Your task to perform on an android device: check battery use Image 0: 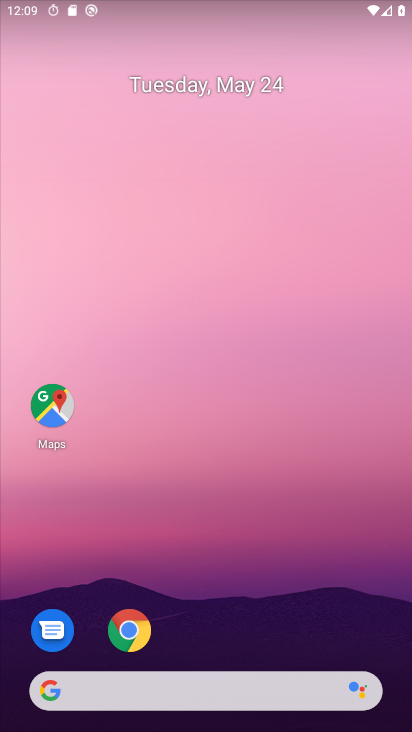
Step 0: drag from (194, 633) to (271, 1)
Your task to perform on an android device: check battery use Image 1: 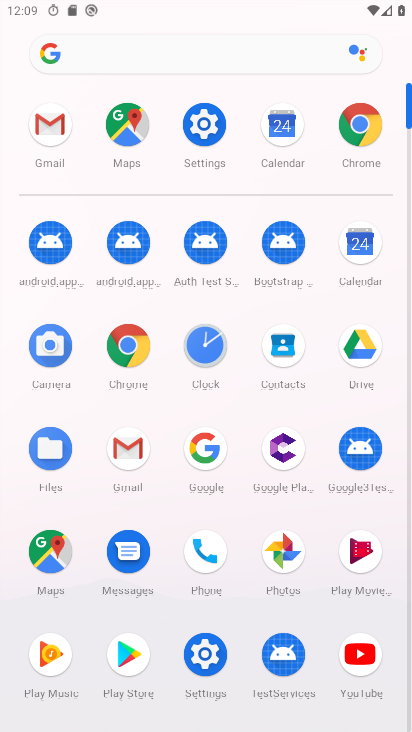
Step 1: click (204, 136)
Your task to perform on an android device: check battery use Image 2: 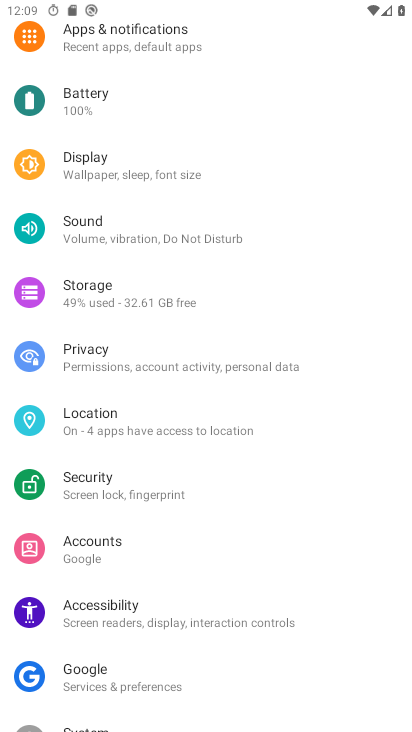
Step 2: click (126, 106)
Your task to perform on an android device: check battery use Image 3: 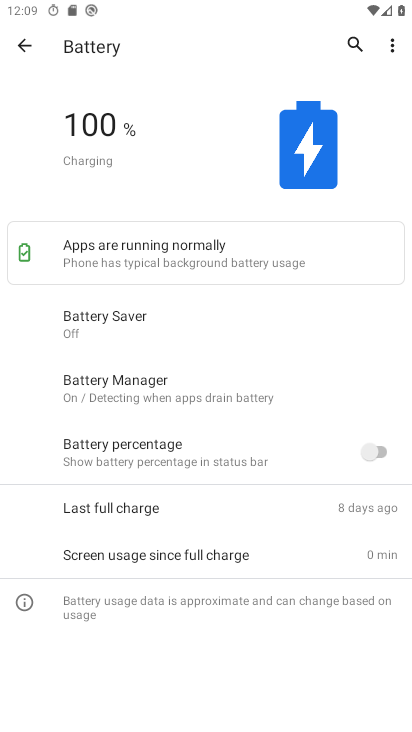
Step 3: click (390, 37)
Your task to perform on an android device: check battery use Image 4: 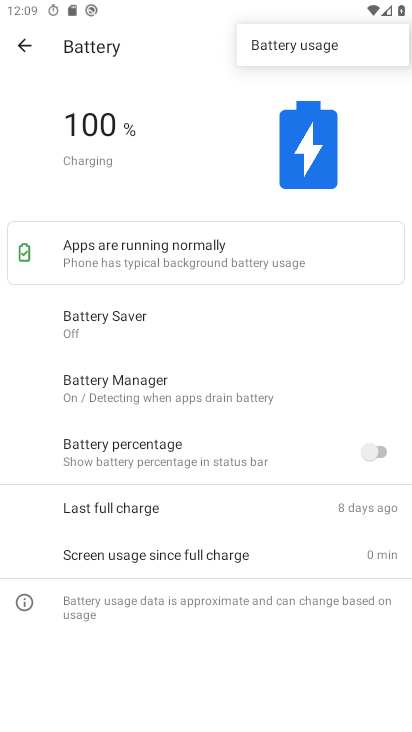
Step 4: click (303, 42)
Your task to perform on an android device: check battery use Image 5: 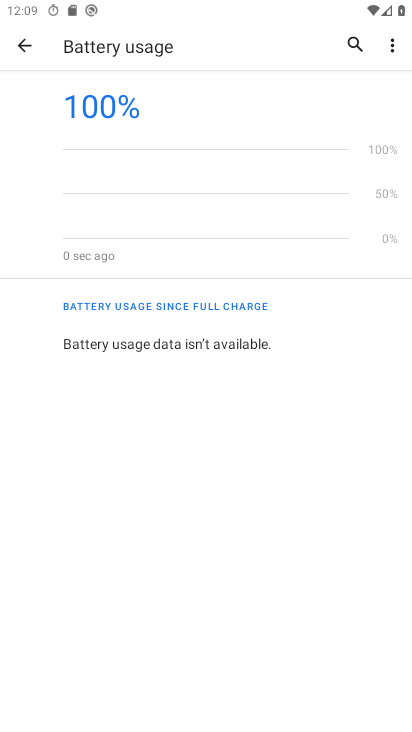
Step 5: task complete